Your task to perform on an android device: What's the news this morning? Image 0: 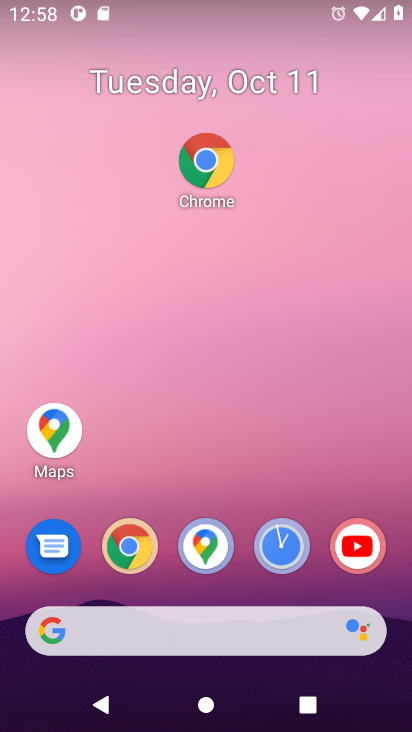
Step 0: click (137, 548)
Your task to perform on an android device: What's the news this morning? Image 1: 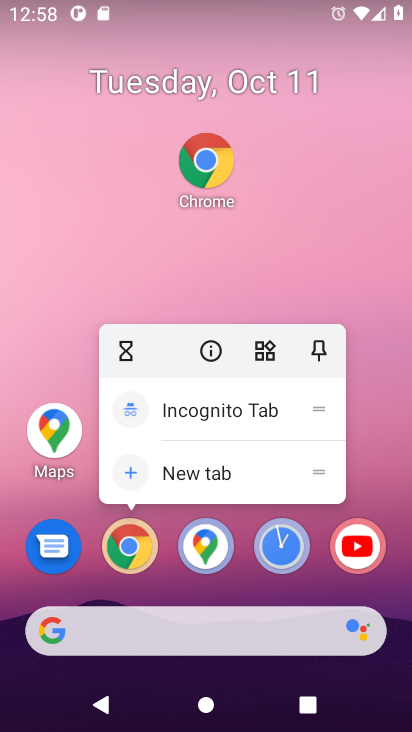
Step 1: click (138, 547)
Your task to perform on an android device: What's the news this morning? Image 2: 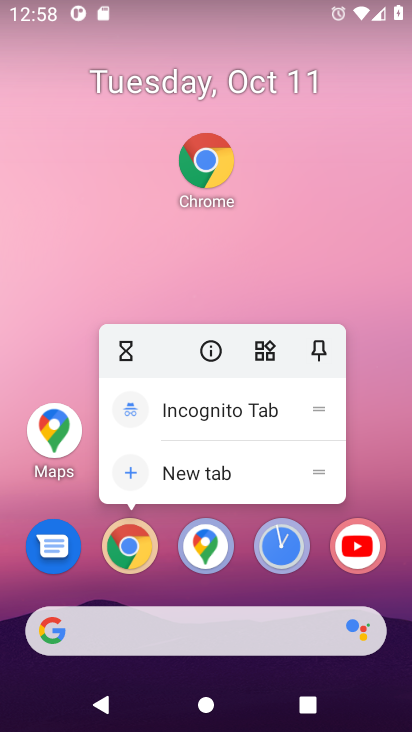
Step 2: click (126, 559)
Your task to perform on an android device: What's the news this morning? Image 3: 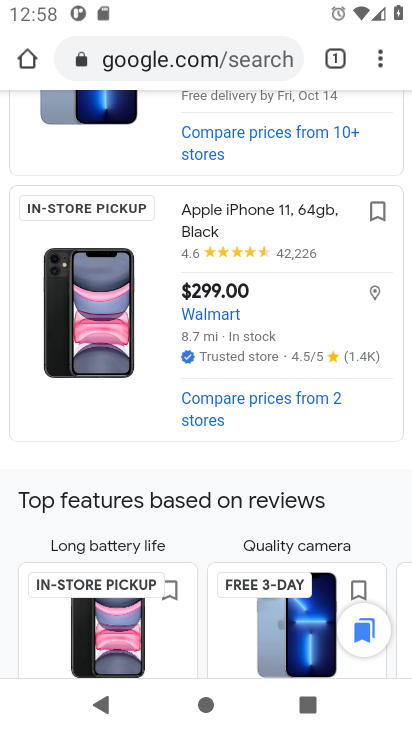
Step 3: click (216, 61)
Your task to perform on an android device: What's the news this morning? Image 4: 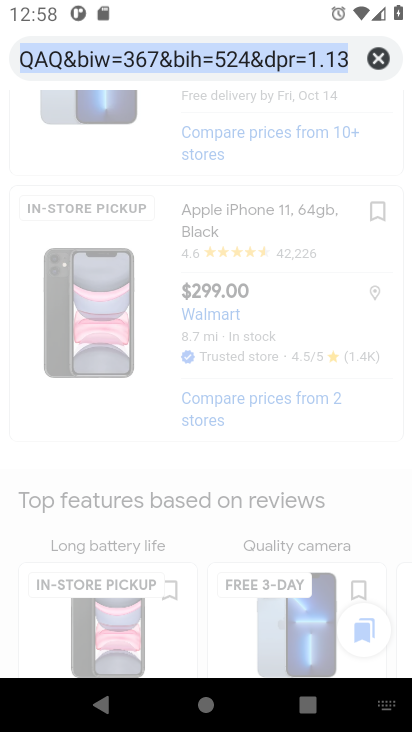
Step 4: type "news this morning"
Your task to perform on an android device: What's the news this morning? Image 5: 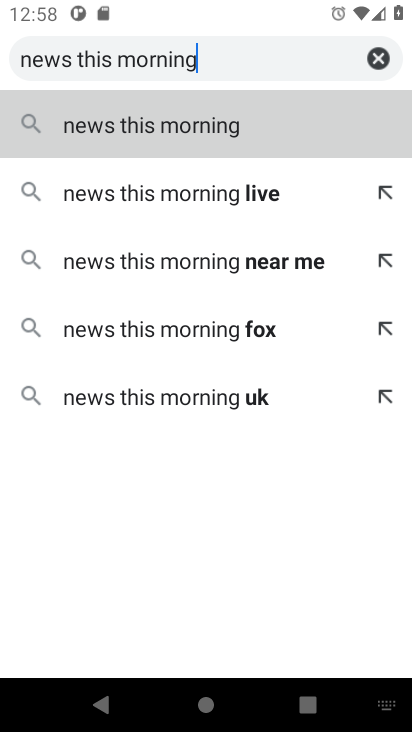
Step 5: press enter
Your task to perform on an android device: What's the news this morning? Image 6: 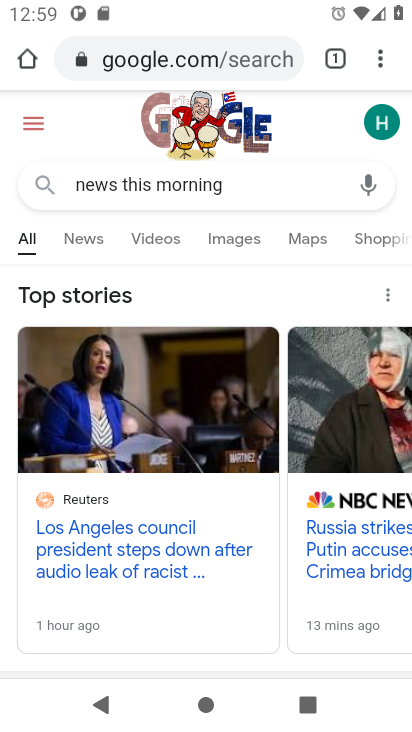
Step 6: drag from (254, 562) to (268, 224)
Your task to perform on an android device: What's the news this morning? Image 7: 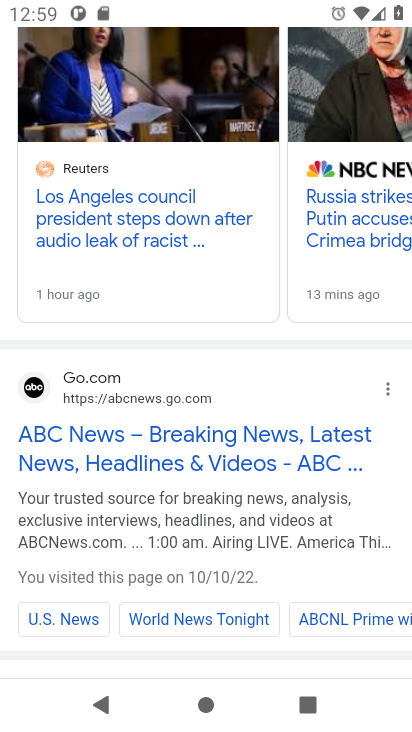
Step 7: drag from (302, 302) to (301, 547)
Your task to perform on an android device: What's the news this morning? Image 8: 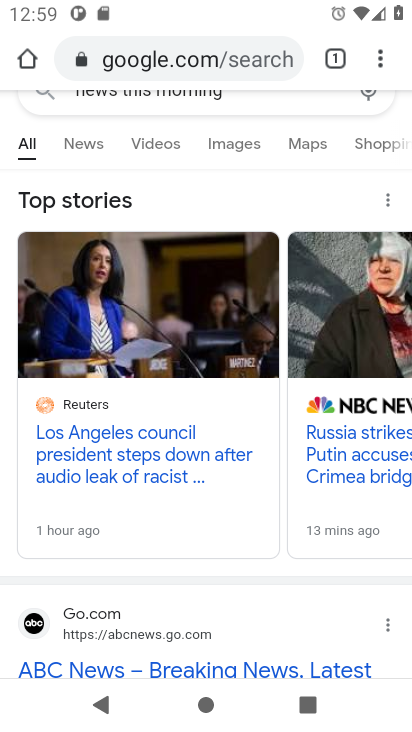
Step 8: click (77, 144)
Your task to perform on an android device: What's the news this morning? Image 9: 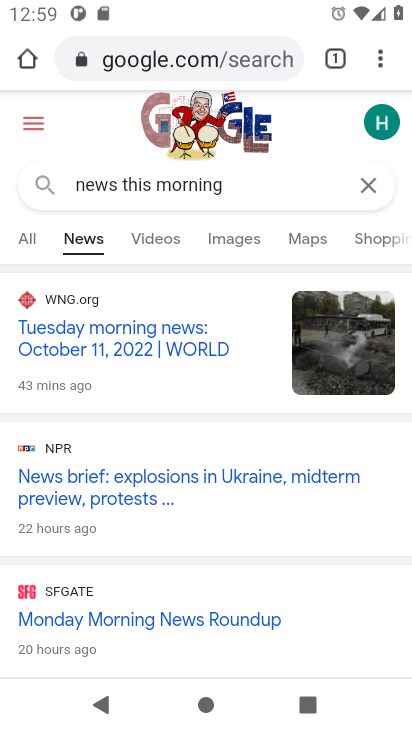
Step 9: task complete